Your task to perform on an android device: Go to settings Image 0: 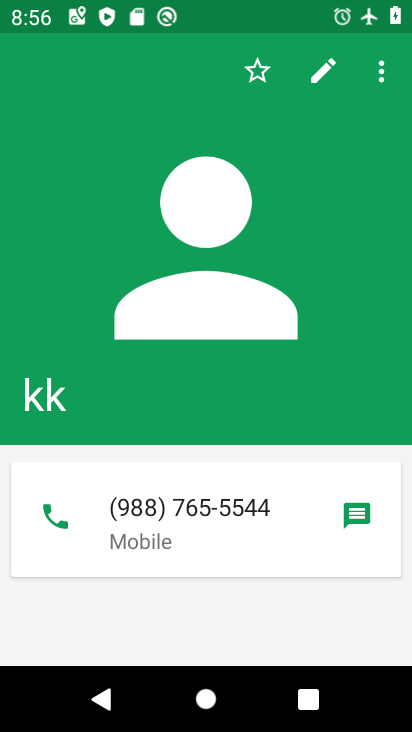
Step 0: press home button
Your task to perform on an android device: Go to settings Image 1: 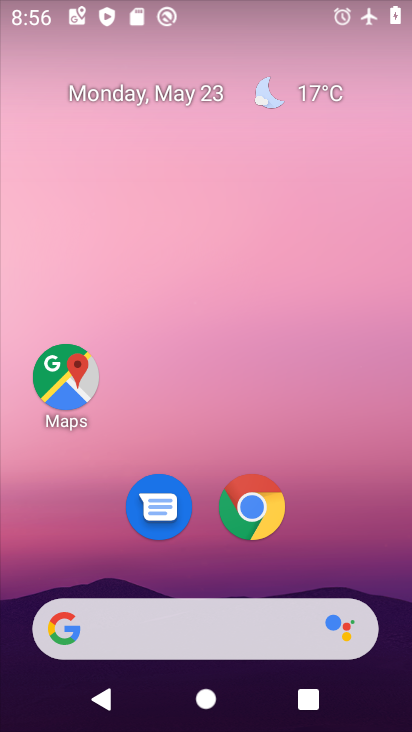
Step 1: drag from (355, 579) to (285, 21)
Your task to perform on an android device: Go to settings Image 2: 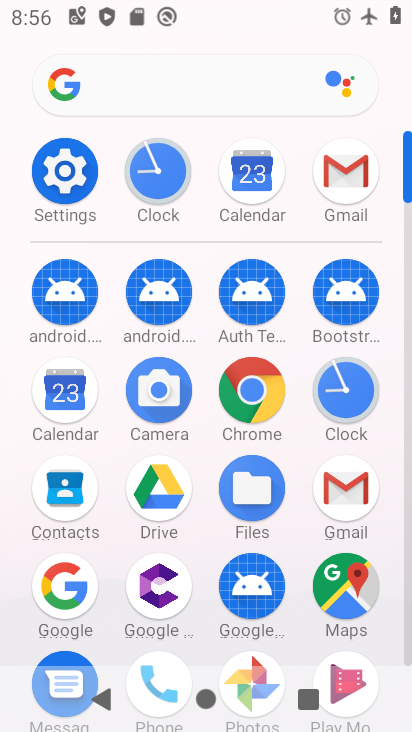
Step 2: click (71, 178)
Your task to perform on an android device: Go to settings Image 3: 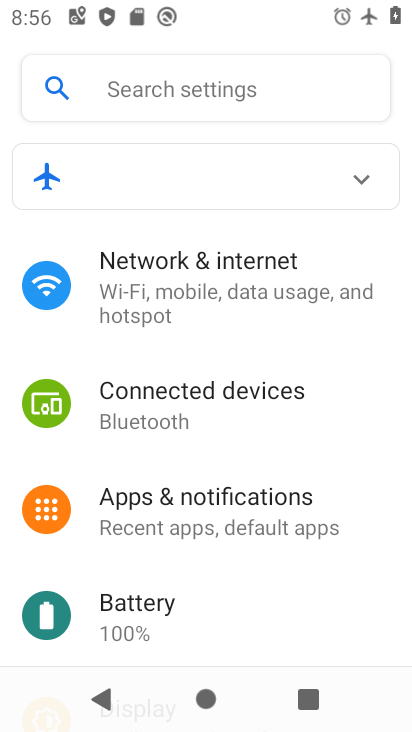
Step 3: task complete